Your task to perform on an android device: Open the calendar app, open the side menu, and click the "Day" option Image 0: 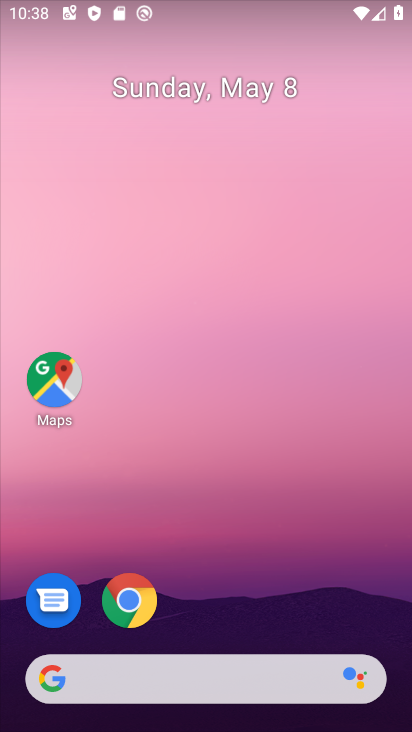
Step 0: click (7, 666)
Your task to perform on an android device: Open the calendar app, open the side menu, and click the "Day" option Image 1: 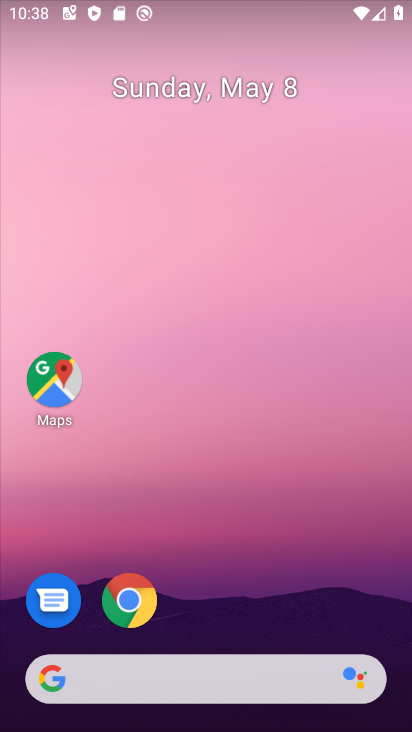
Step 1: drag from (3, 686) to (361, 174)
Your task to perform on an android device: Open the calendar app, open the side menu, and click the "Day" option Image 2: 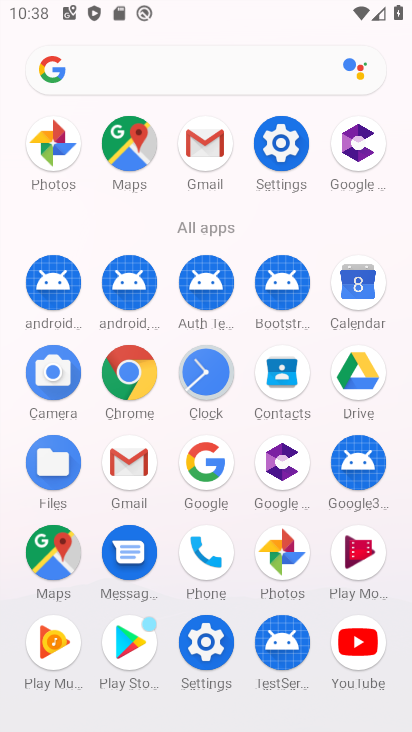
Step 2: click (372, 300)
Your task to perform on an android device: Open the calendar app, open the side menu, and click the "Day" option Image 3: 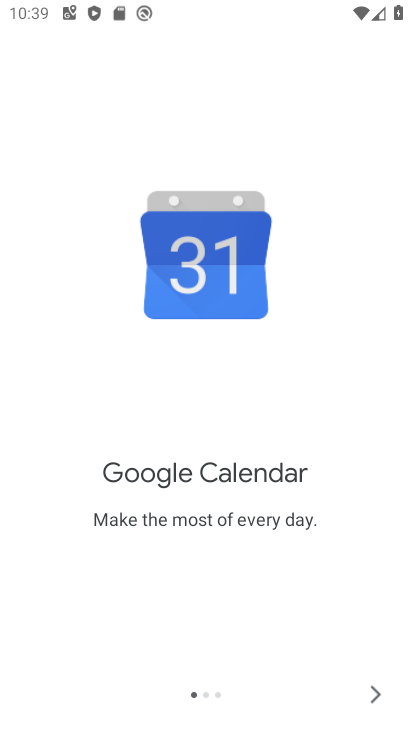
Step 3: click (377, 702)
Your task to perform on an android device: Open the calendar app, open the side menu, and click the "Day" option Image 4: 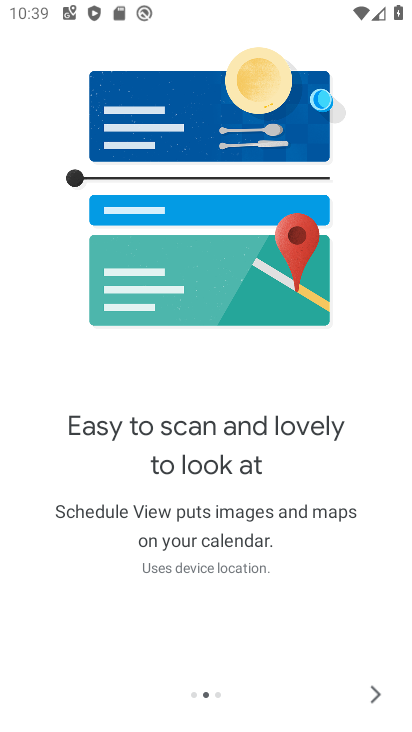
Step 4: click (377, 699)
Your task to perform on an android device: Open the calendar app, open the side menu, and click the "Day" option Image 5: 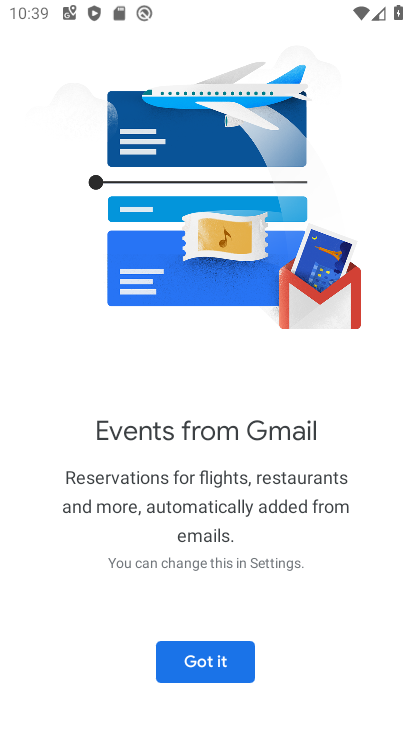
Step 5: click (377, 699)
Your task to perform on an android device: Open the calendar app, open the side menu, and click the "Day" option Image 6: 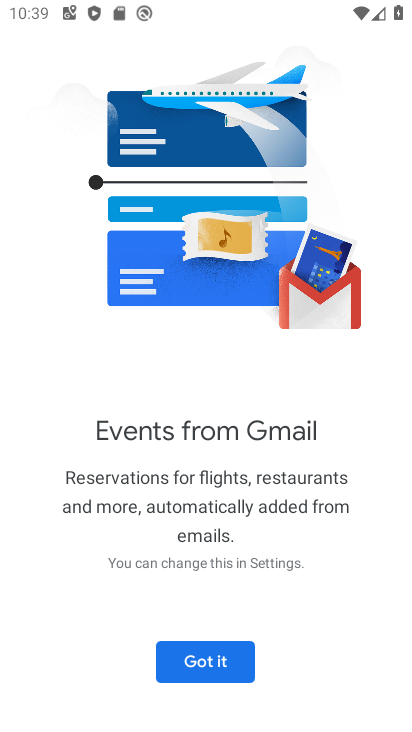
Step 6: click (188, 661)
Your task to perform on an android device: Open the calendar app, open the side menu, and click the "Day" option Image 7: 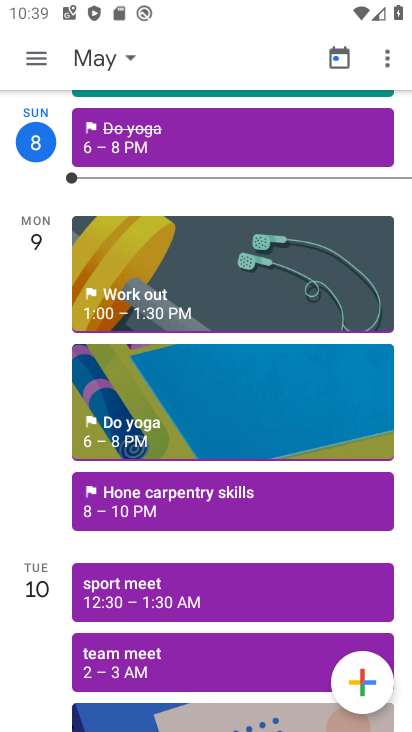
Step 7: click (37, 54)
Your task to perform on an android device: Open the calendar app, open the side menu, and click the "Day" option Image 8: 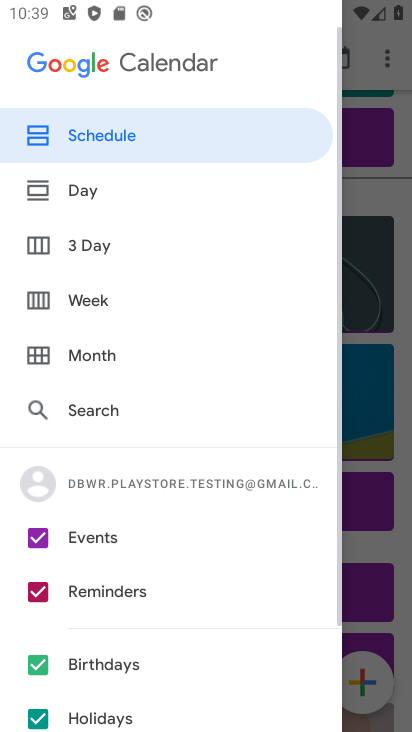
Step 8: click (165, 196)
Your task to perform on an android device: Open the calendar app, open the side menu, and click the "Day" option Image 9: 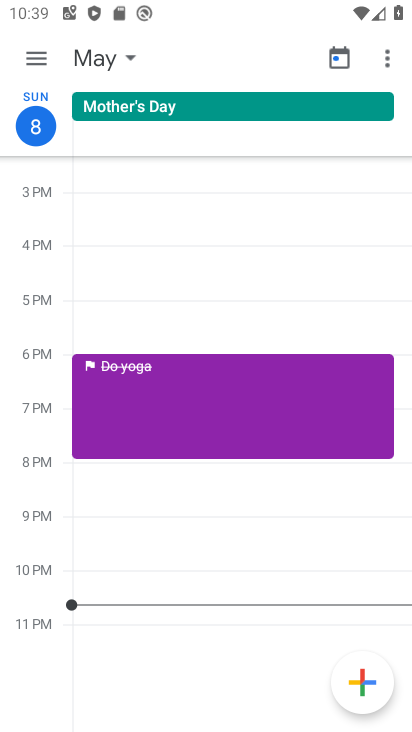
Step 9: task complete